Your task to perform on an android device: Open internet settings Image 0: 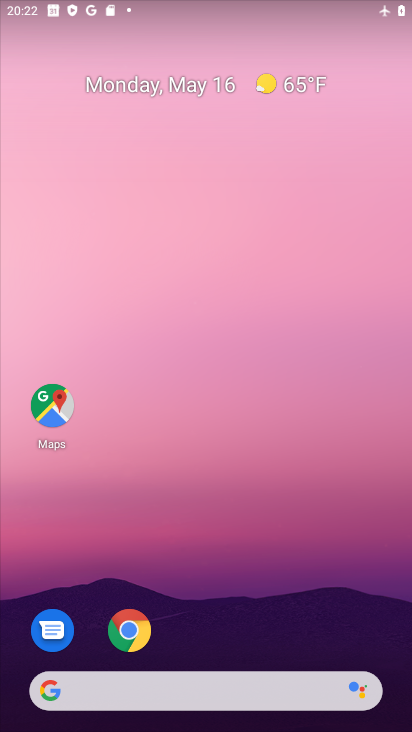
Step 0: drag from (211, 647) to (231, 223)
Your task to perform on an android device: Open internet settings Image 1: 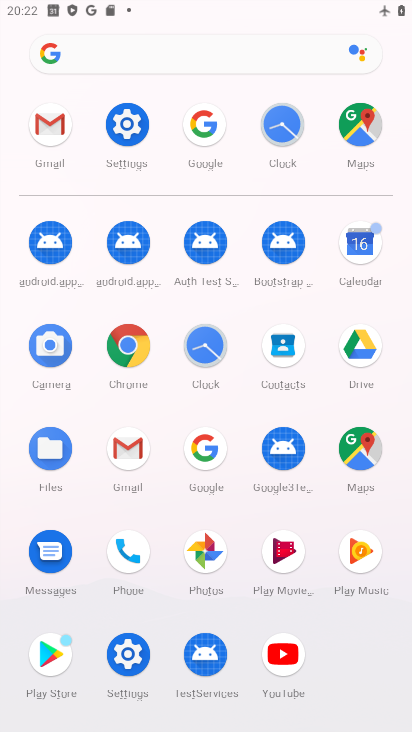
Step 1: click (119, 138)
Your task to perform on an android device: Open internet settings Image 2: 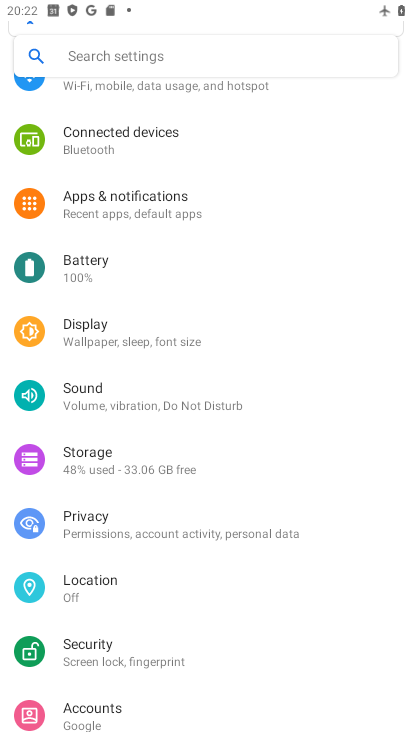
Step 2: drag from (195, 171) to (192, 494)
Your task to perform on an android device: Open internet settings Image 3: 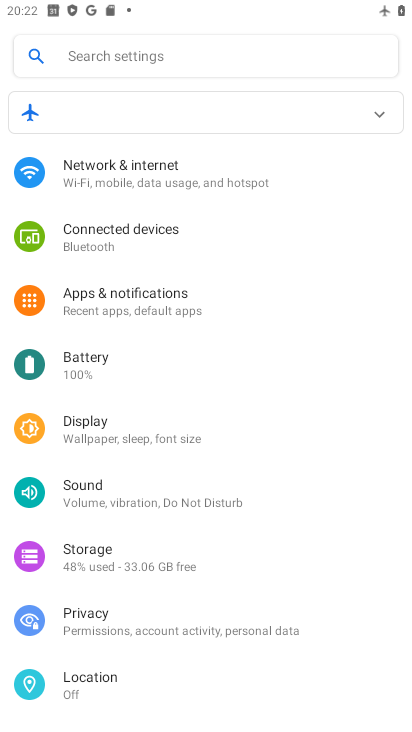
Step 3: click (135, 170)
Your task to perform on an android device: Open internet settings Image 4: 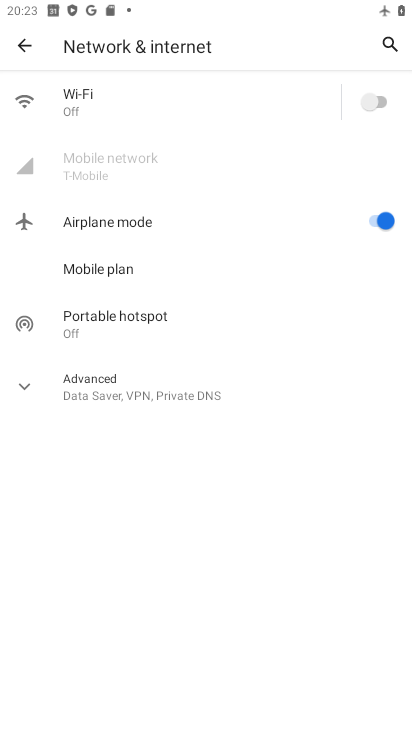
Step 4: click (135, 174)
Your task to perform on an android device: Open internet settings Image 5: 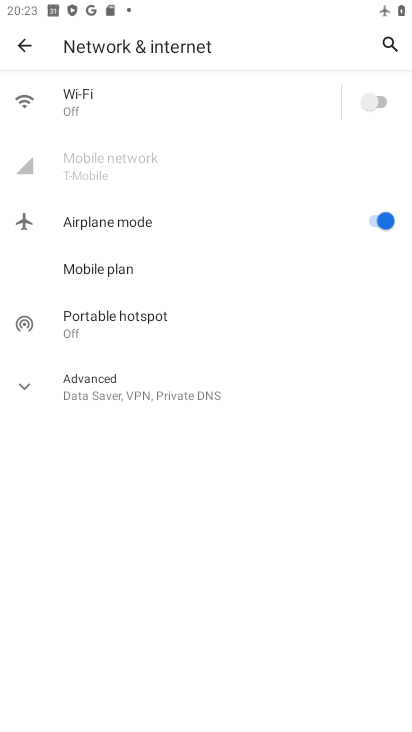
Step 5: task complete